Your task to perform on an android device: What's the latest news in planetary science? Image 0: 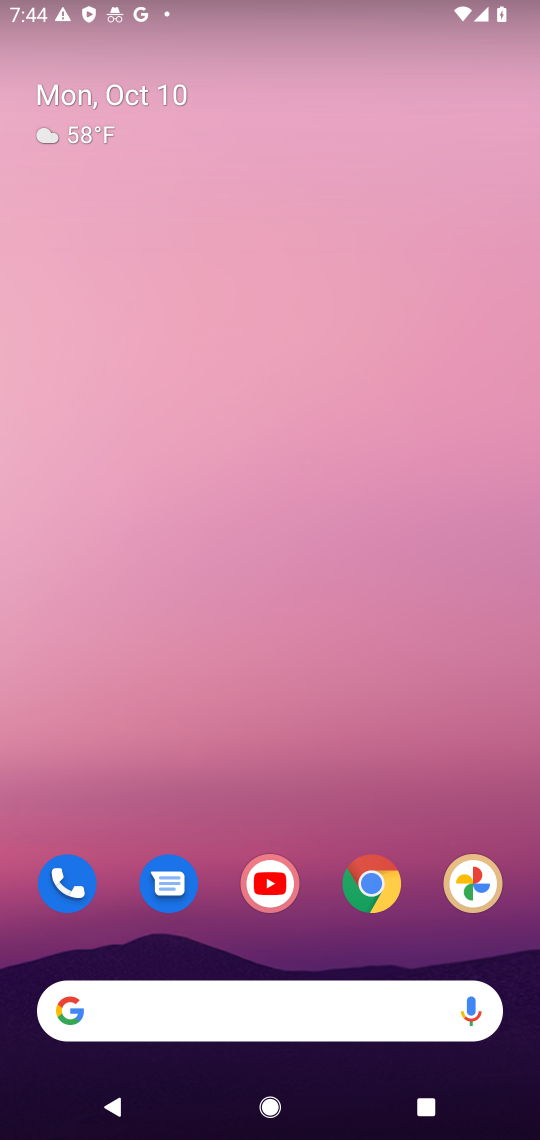
Step 0: click (296, 723)
Your task to perform on an android device: What's the latest news in planetary science? Image 1: 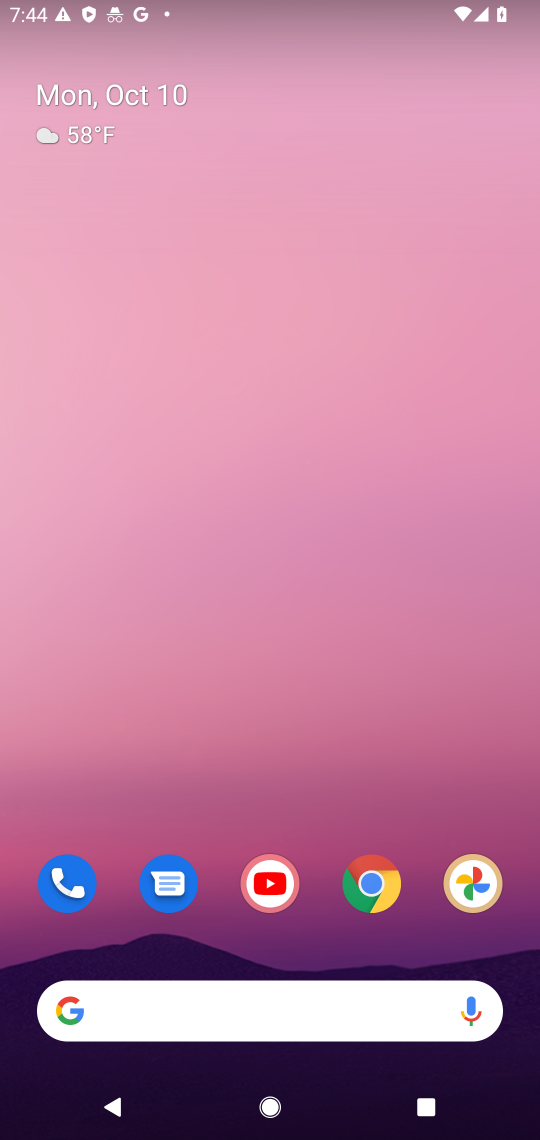
Step 1: drag from (285, 954) to (293, 366)
Your task to perform on an android device: What's the latest news in planetary science? Image 2: 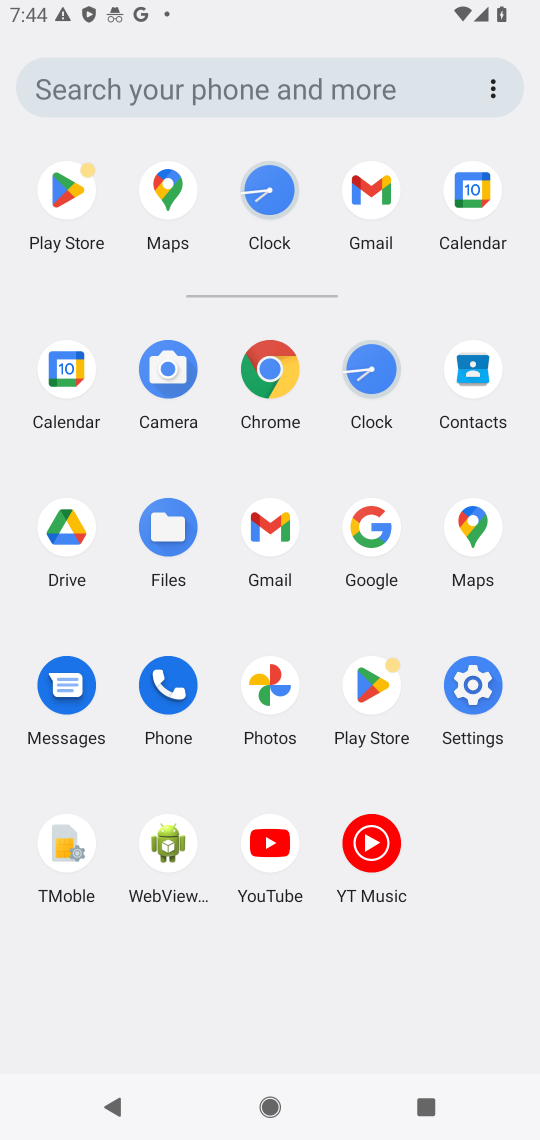
Step 2: click (376, 510)
Your task to perform on an android device: What's the latest news in planetary science? Image 3: 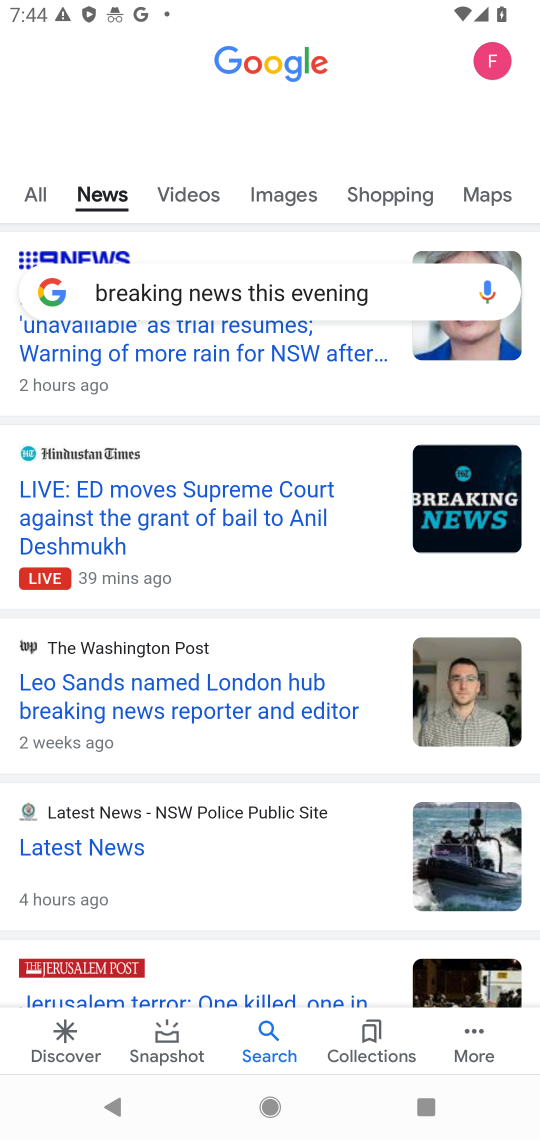
Step 3: click (407, 289)
Your task to perform on an android device: What's the latest news in planetary science? Image 4: 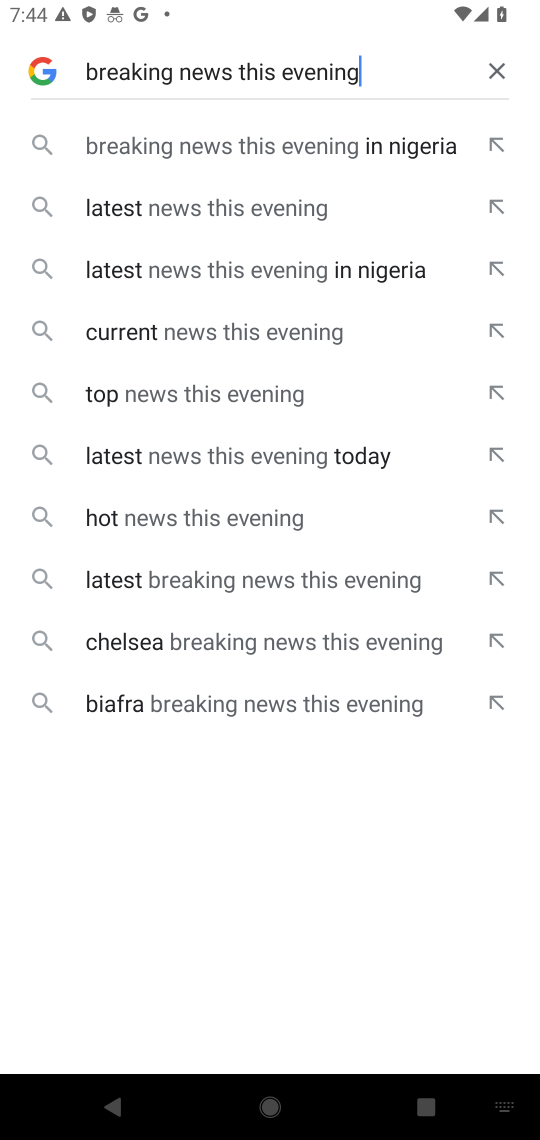
Step 4: click (503, 63)
Your task to perform on an android device: What's the latest news in planetary science? Image 5: 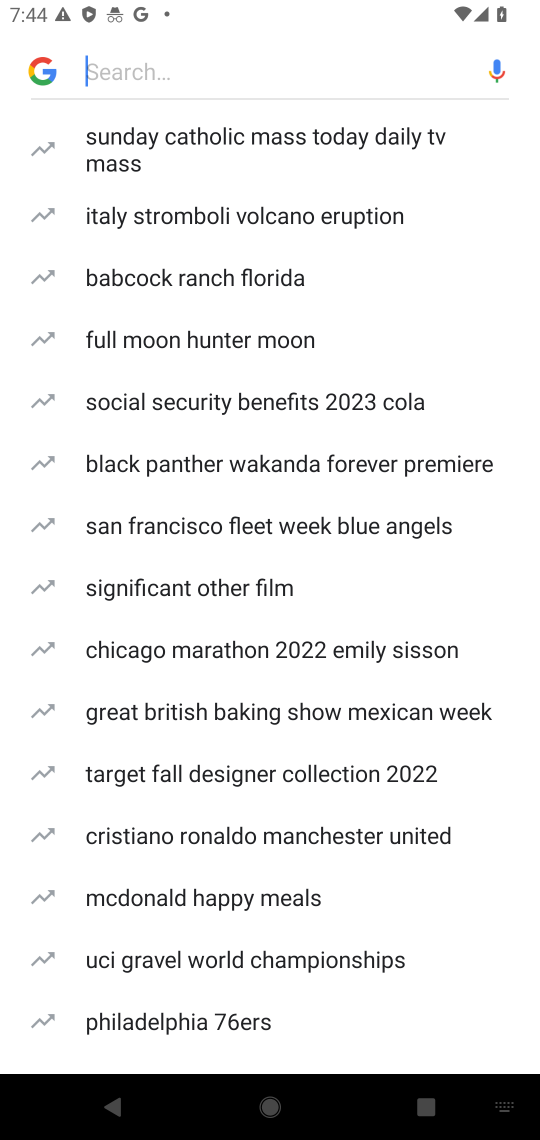
Step 5: type "What's the latest news in planetary science?"
Your task to perform on an android device: What's the latest news in planetary science? Image 6: 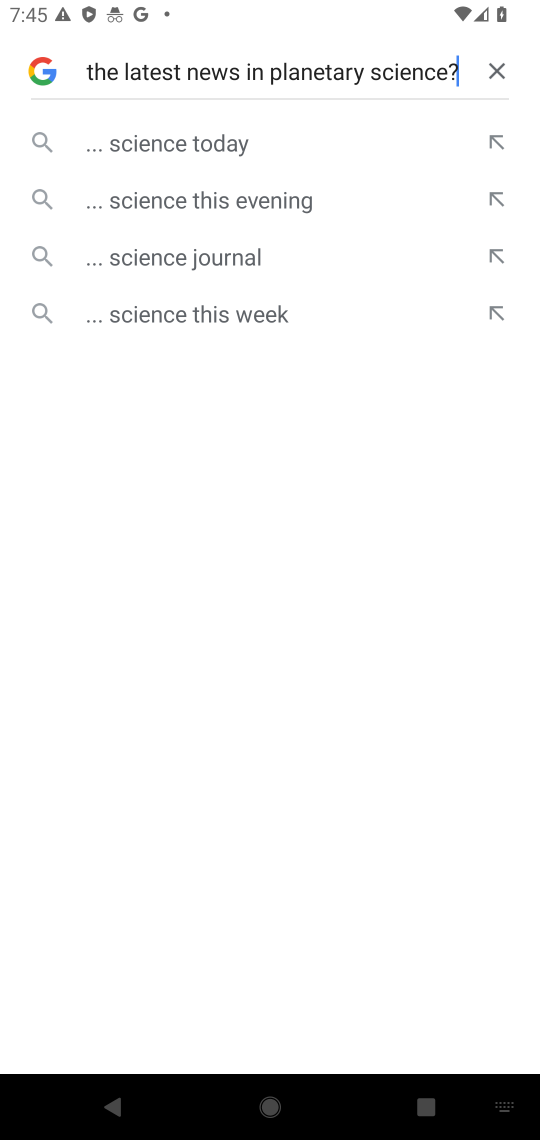
Step 6: click (345, 140)
Your task to perform on an android device: What's the latest news in planetary science? Image 7: 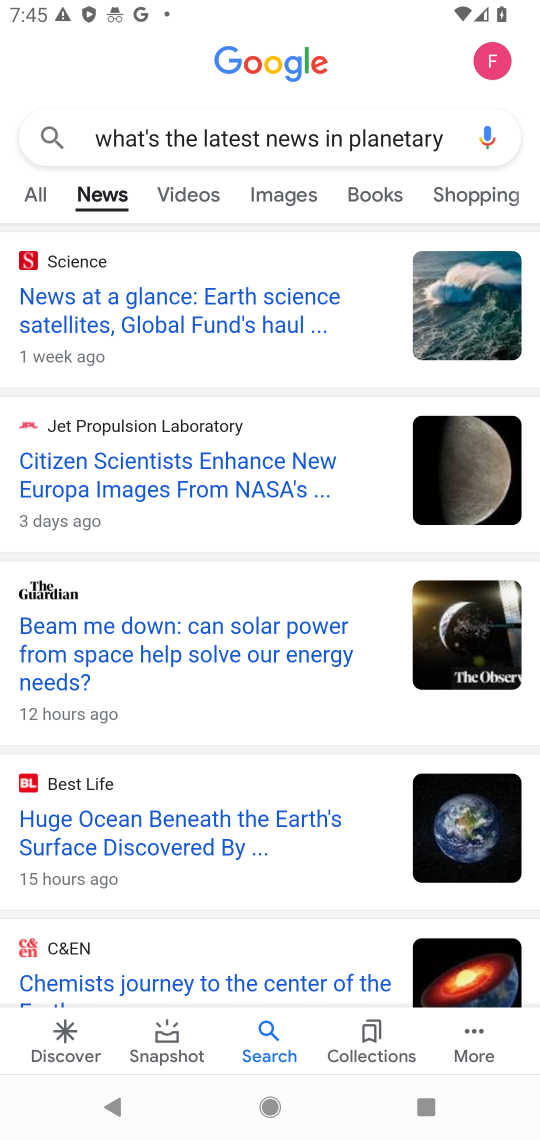
Step 7: task complete